Your task to perform on an android device: open app "DoorDash - Dasher" (install if not already installed) Image 0: 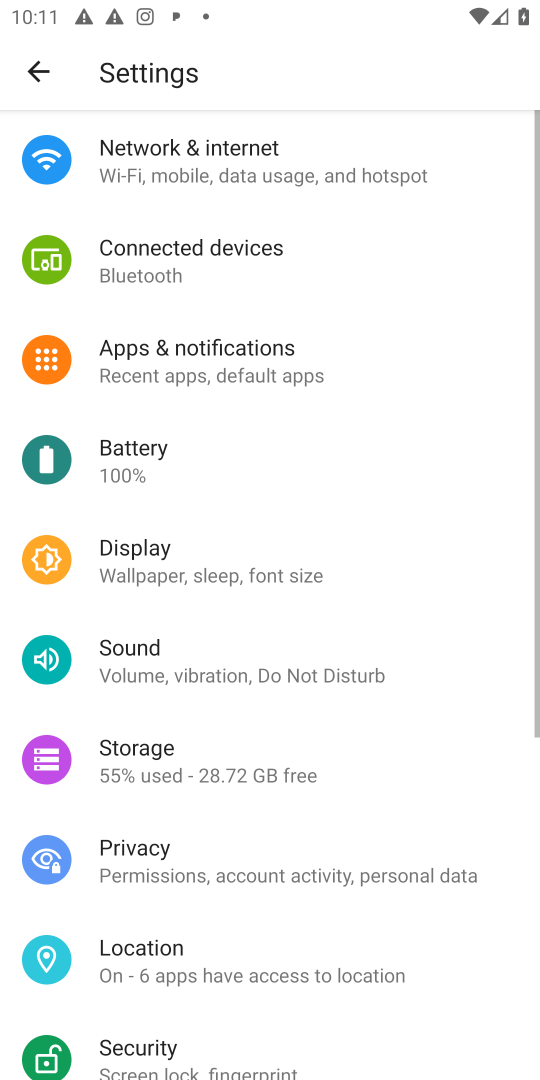
Step 0: press home button
Your task to perform on an android device: open app "DoorDash - Dasher" (install if not already installed) Image 1: 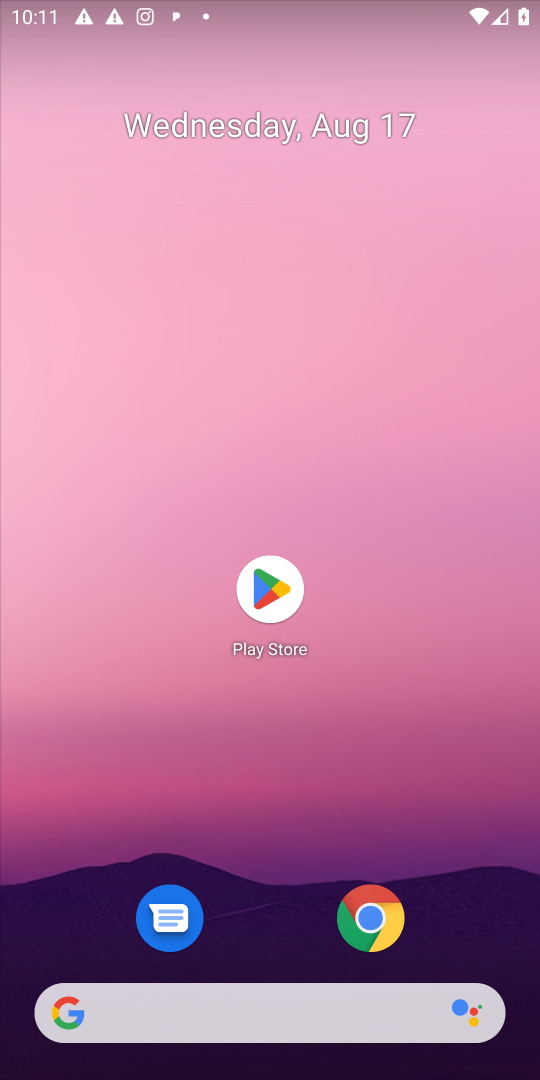
Step 1: click (272, 585)
Your task to perform on an android device: open app "DoorDash - Dasher" (install if not already installed) Image 2: 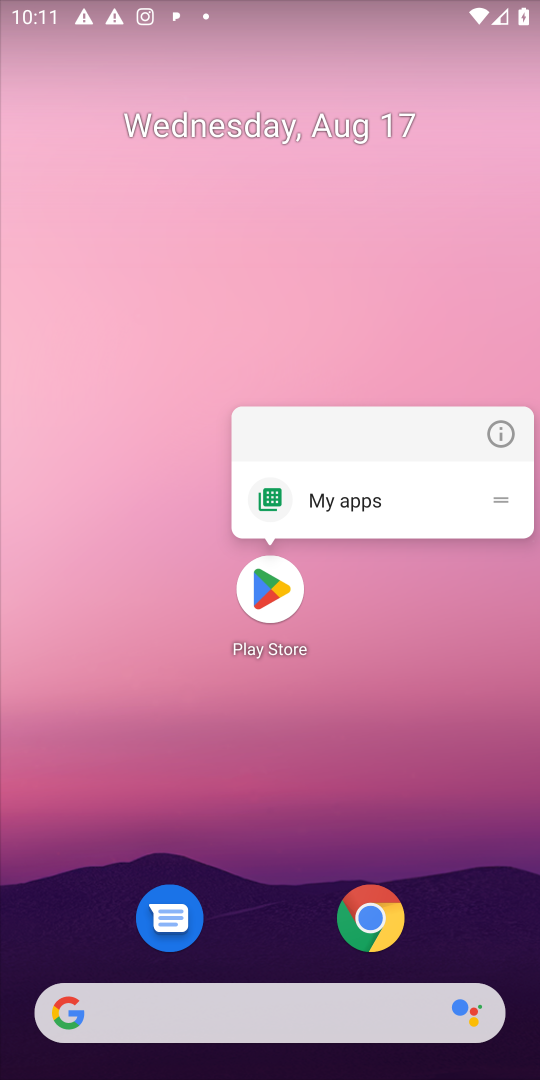
Step 2: click (270, 582)
Your task to perform on an android device: open app "DoorDash - Dasher" (install if not already installed) Image 3: 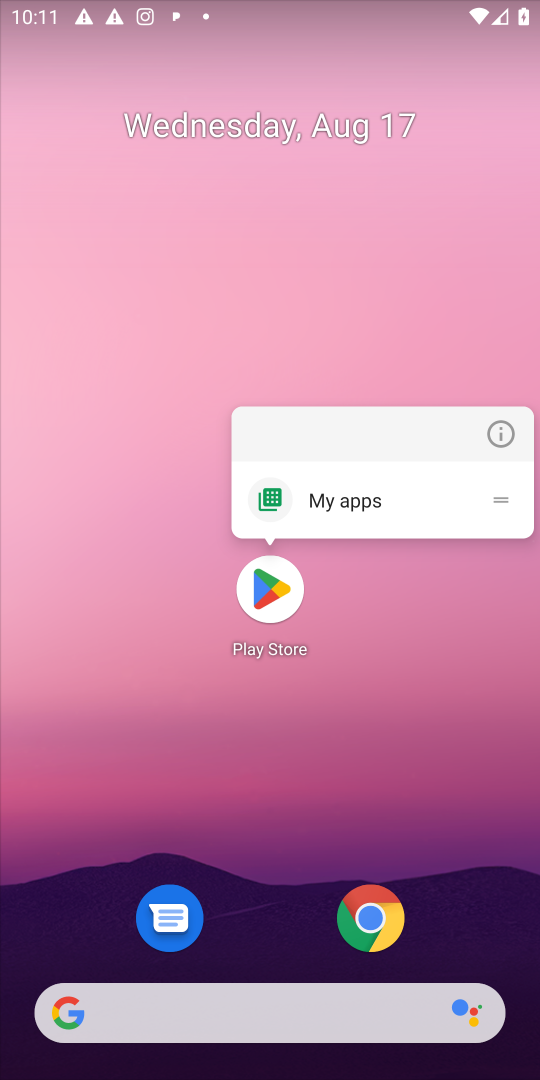
Step 3: click (271, 586)
Your task to perform on an android device: open app "DoorDash - Dasher" (install if not already installed) Image 4: 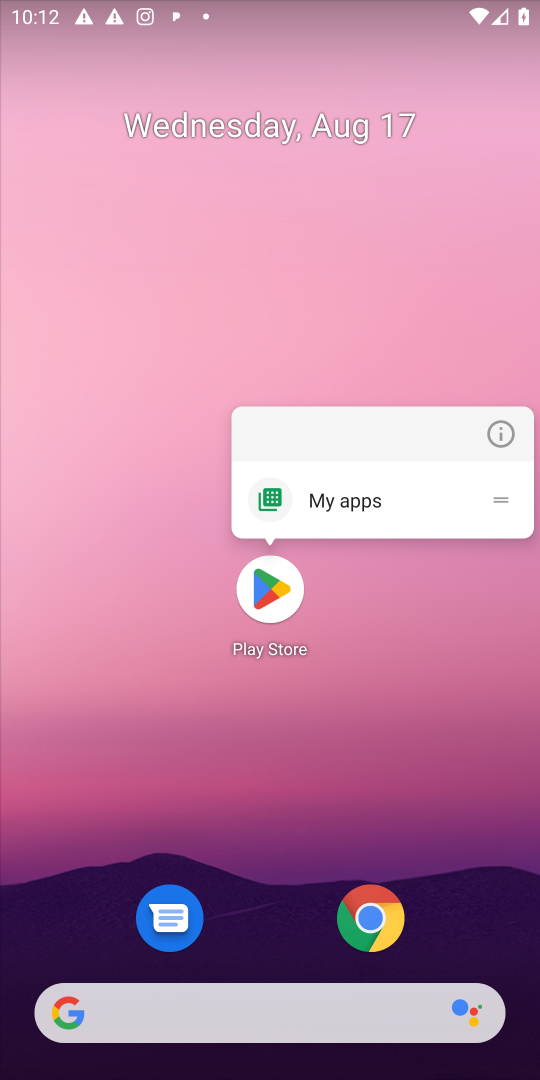
Step 4: click (271, 590)
Your task to perform on an android device: open app "DoorDash - Dasher" (install if not already installed) Image 5: 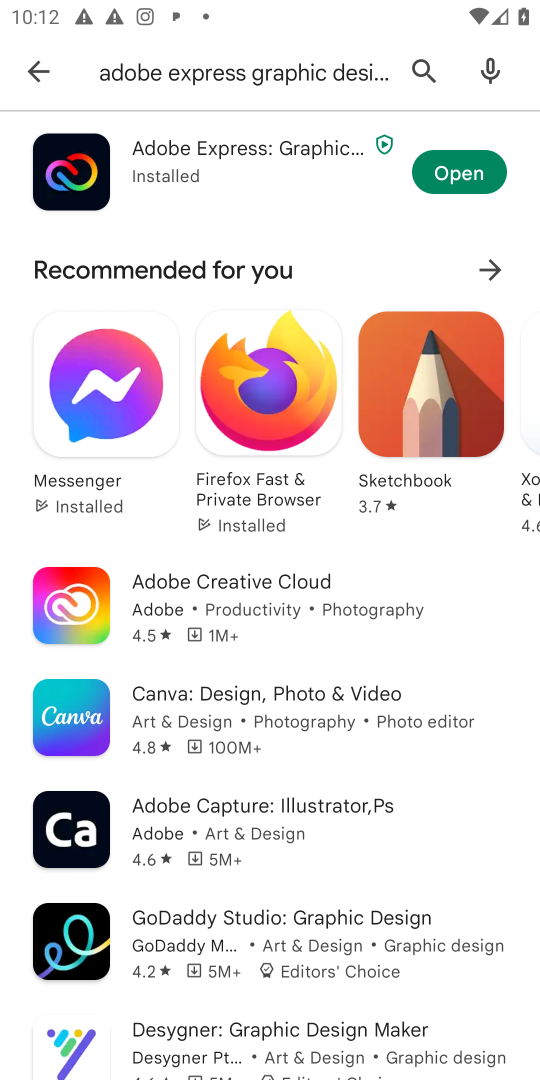
Step 5: click (418, 72)
Your task to perform on an android device: open app "DoorDash - Dasher" (install if not already installed) Image 6: 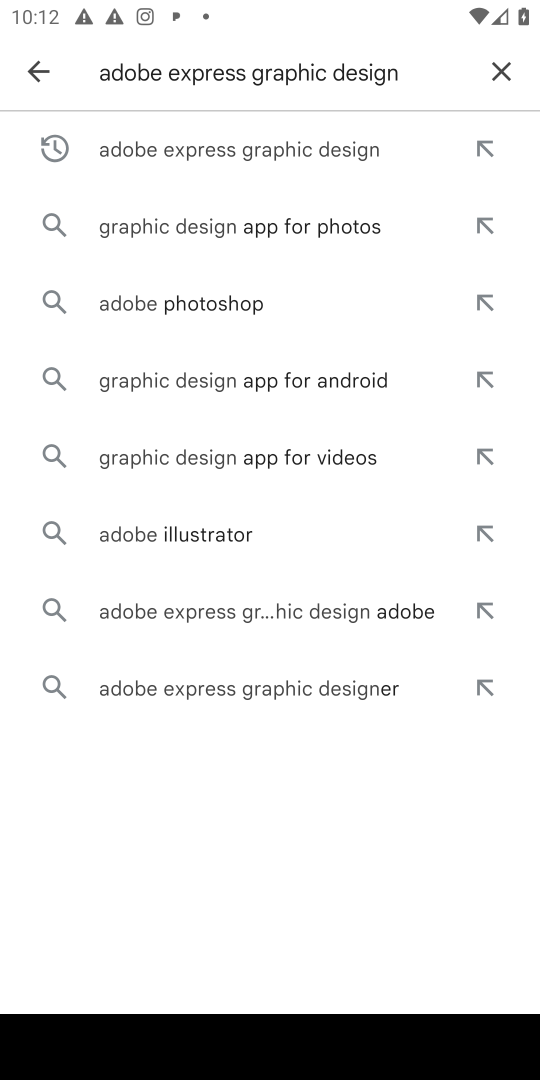
Step 6: click (496, 70)
Your task to perform on an android device: open app "DoorDash - Dasher" (install if not already installed) Image 7: 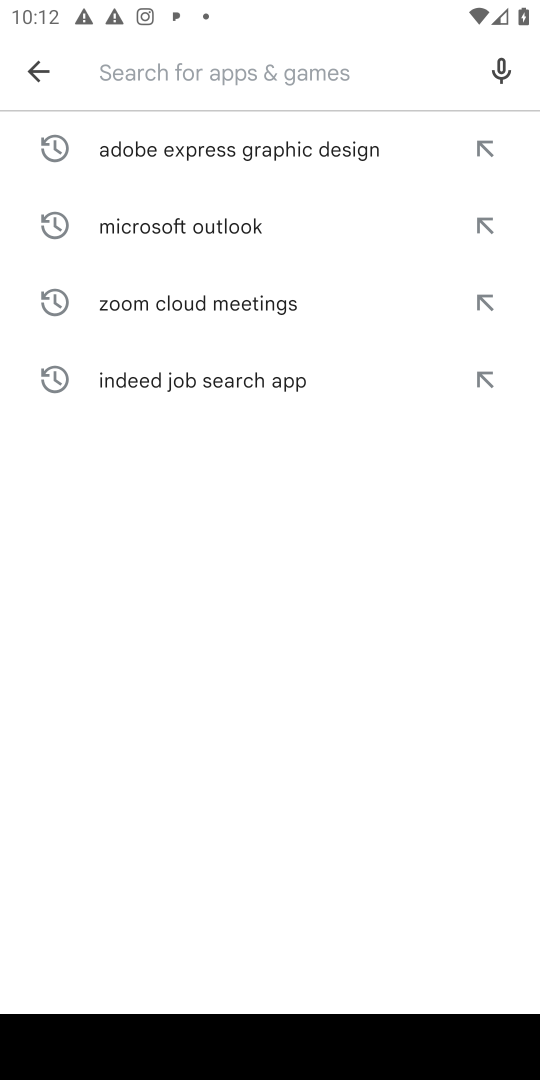
Step 7: type "DoorDash - Dasher"
Your task to perform on an android device: open app "DoorDash - Dasher" (install if not already installed) Image 8: 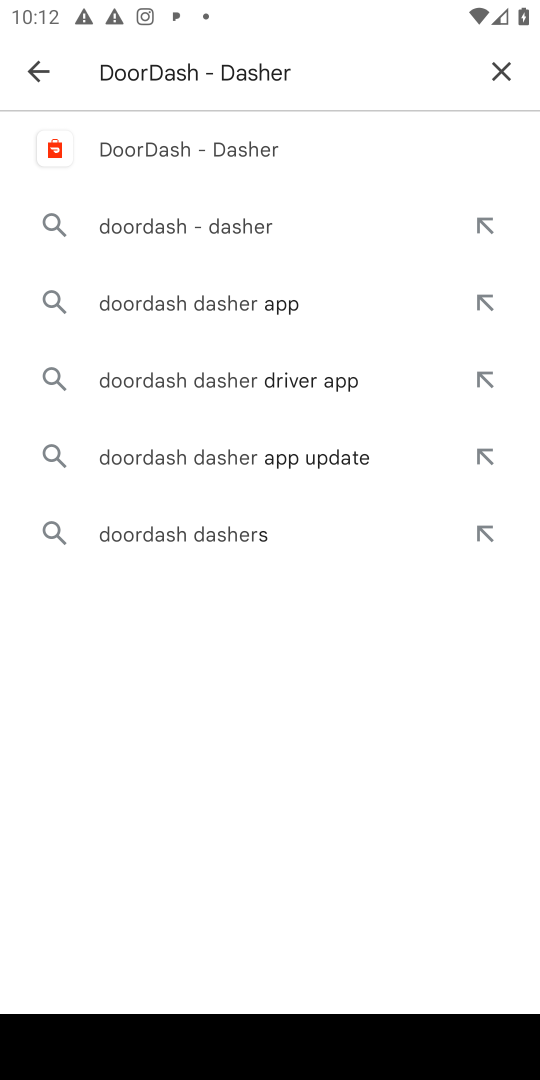
Step 8: click (149, 144)
Your task to perform on an android device: open app "DoorDash - Dasher" (install if not already installed) Image 9: 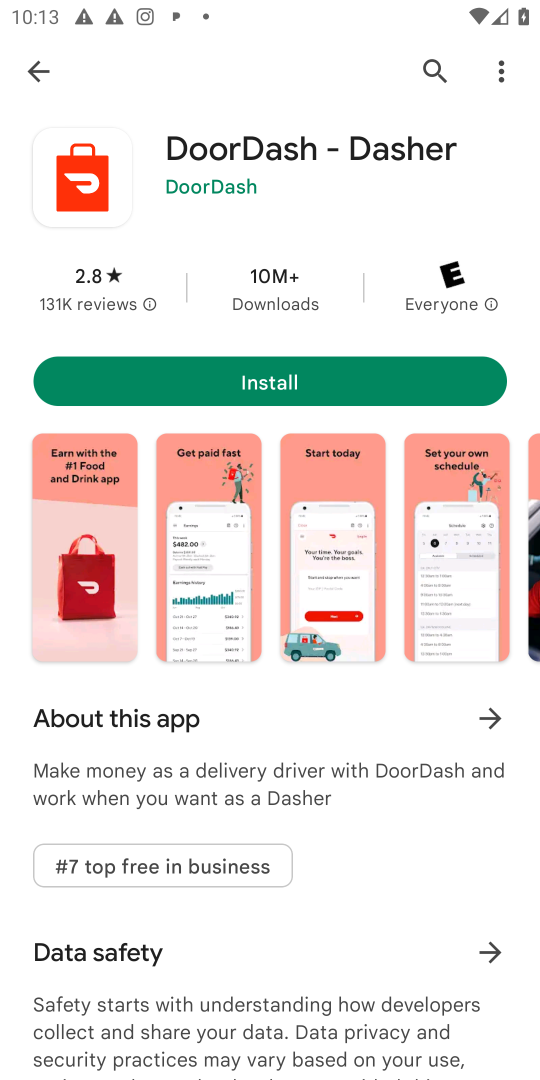
Step 9: click (279, 383)
Your task to perform on an android device: open app "DoorDash - Dasher" (install if not already installed) Image 10: 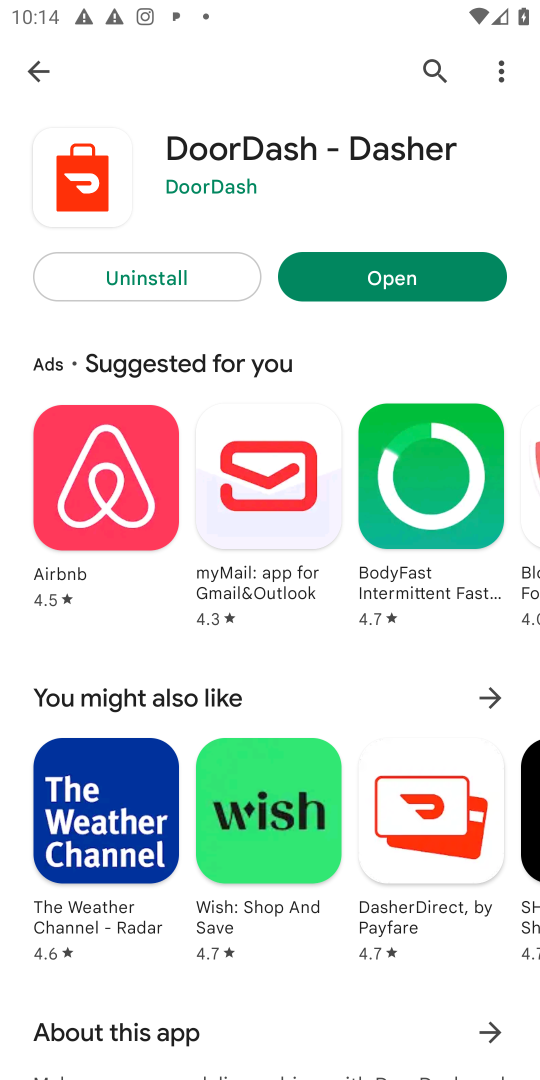
Step 10: click (424, 274)
Your task to perform on an android device: open app "DoorDash - Dasher" (install if not already installed) Image 11: 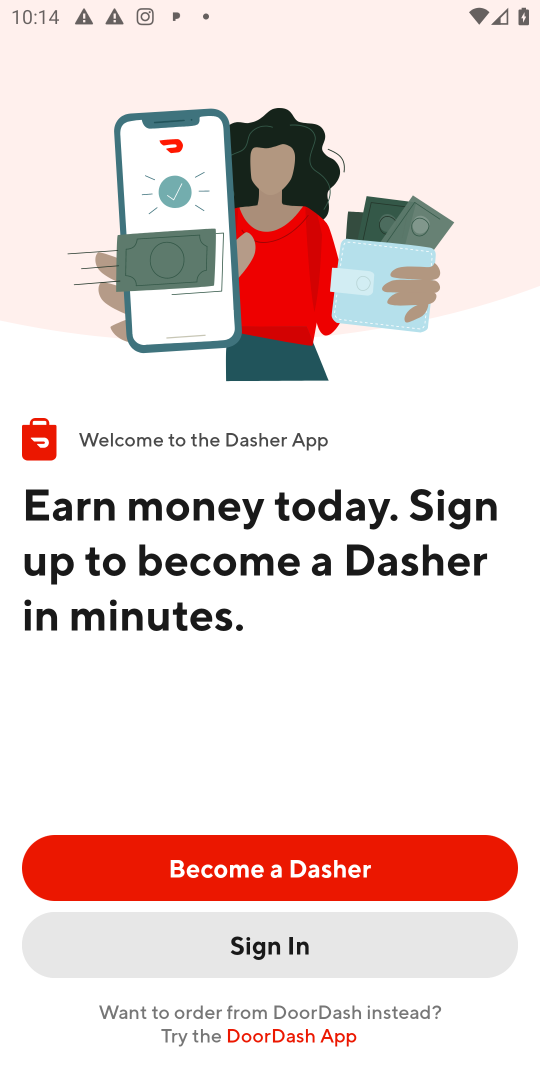
Step 11: task complete